Your task to perform on an android device: Search for vegetarian restaurants on Maps Image 0: 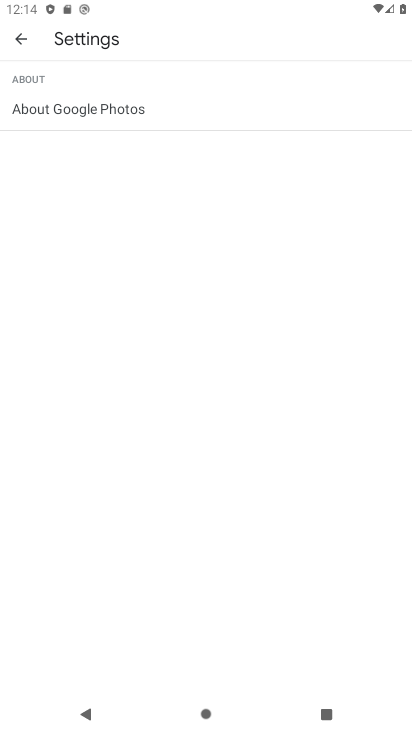
Step 0: task complete